Your task to perform on an android device: Go to wifi settings Image 0: 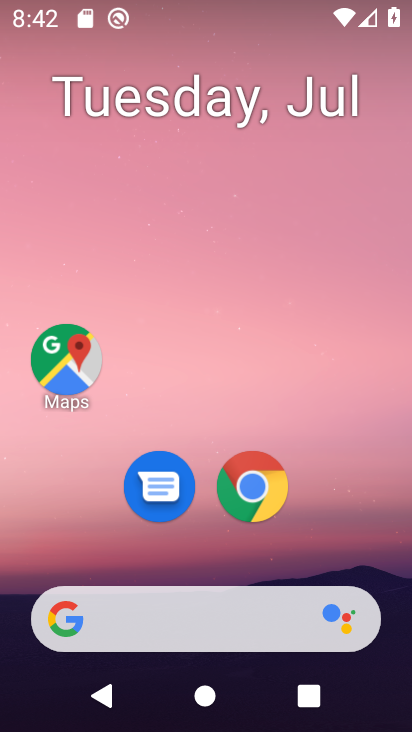
Step 0: drag from (224, 569) to (265, 0)
Your task to perform on an android device: Go to wifi settings Image 1: 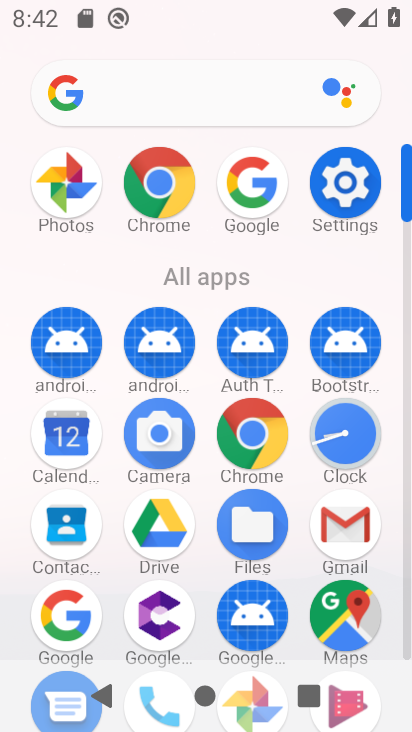
Step 1: click (365, 183)
Your task to perform on an android device: Go to wifi settings Image 2: 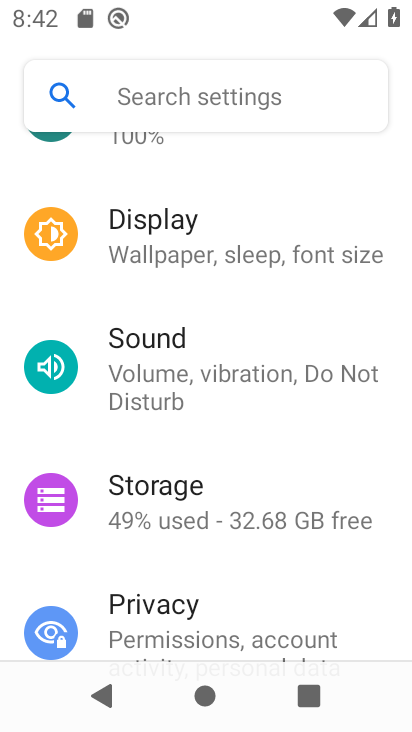
Step 2: drag from (249, 300) to (187, 599)
Your task to perform on an android device: Go to wifi settings Image 3: 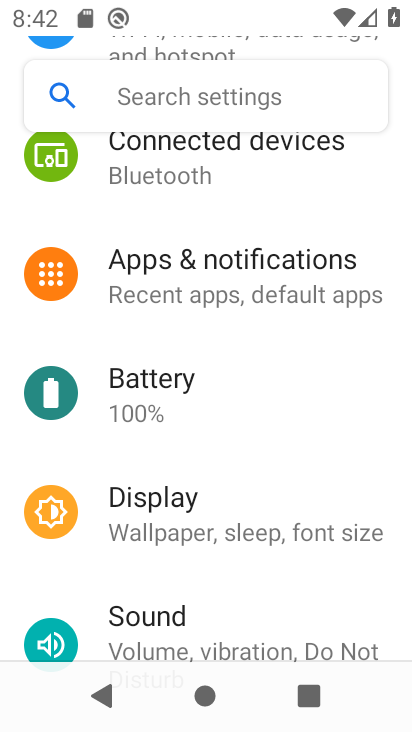
Step 3: drag from (198, 268) to (166, 465)
Your task to perform on an android device: Go to wifi settings Image 4: 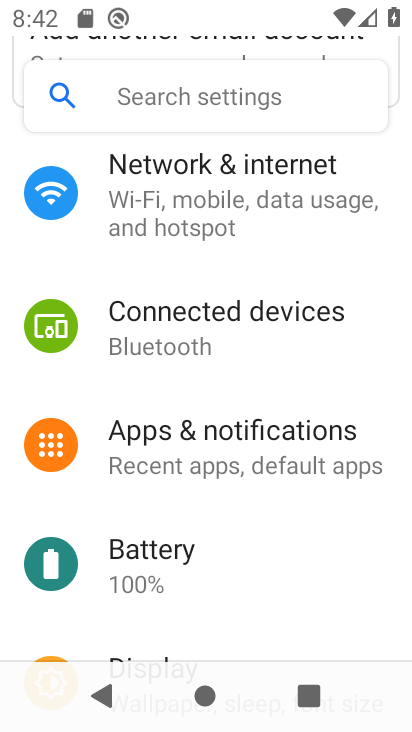
Step 4: drag from (179, 308) to (171, 626)
Your task to perform on an android device: Go to wifi settings Image 5: 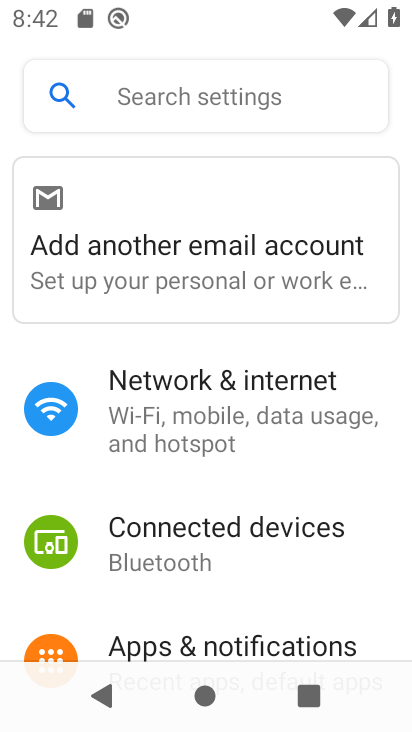
Step 5: click (220, 399)
Your task to perform on an android device: Go to wifi settings Image 6: 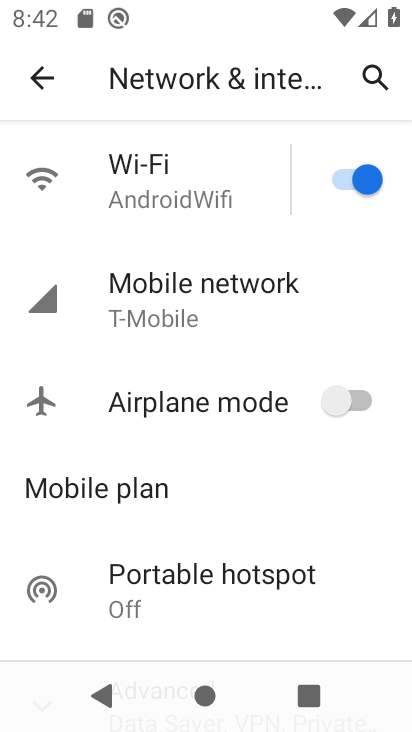
Step 6: click (156, 193)
Your task to perform on an android device: Go to wifi settings Image 7: 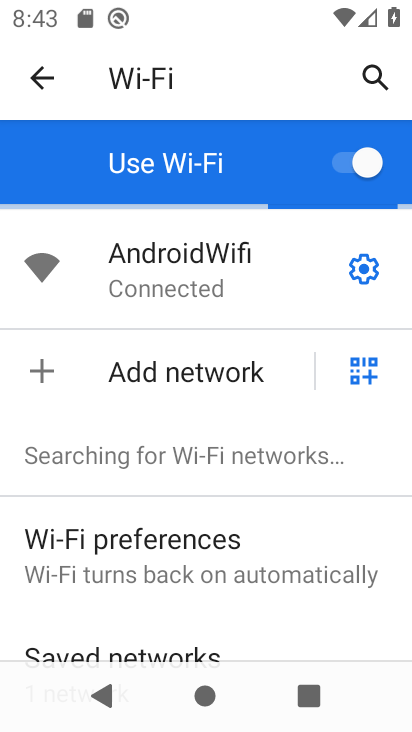
Step 7: task complete